Your task to perform on an android device: turn off javascript in the chrome app Image 0: 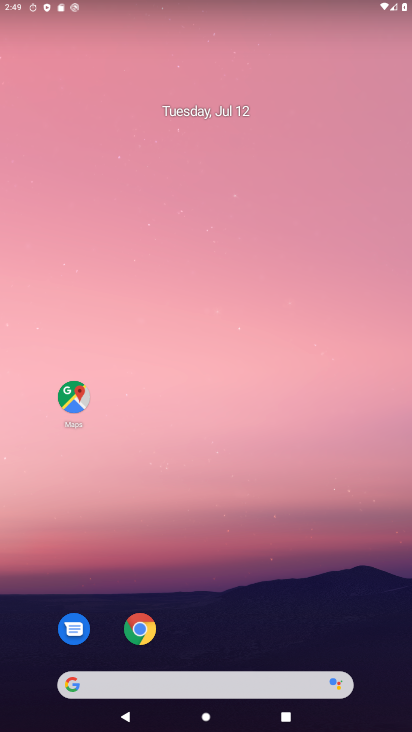
Step 0: drag from (270, 535) to (262, 113)
Your task to perform on an android device: turn off javascript in the chrome app Image 1: 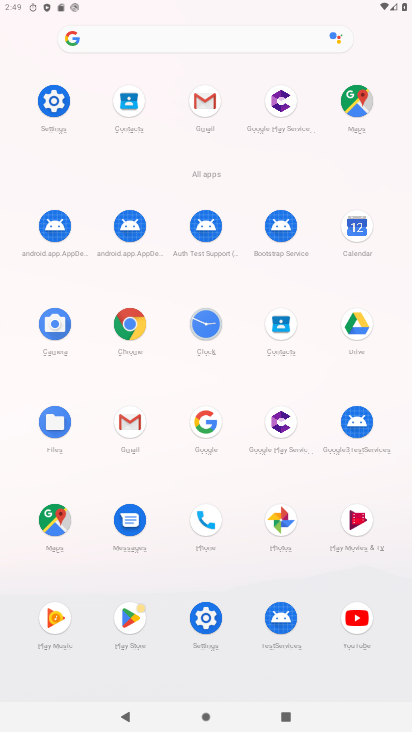
Step 1: click (123, 318)
Your task to perform on an android device: turn off javascript in the chrome app Image 2: 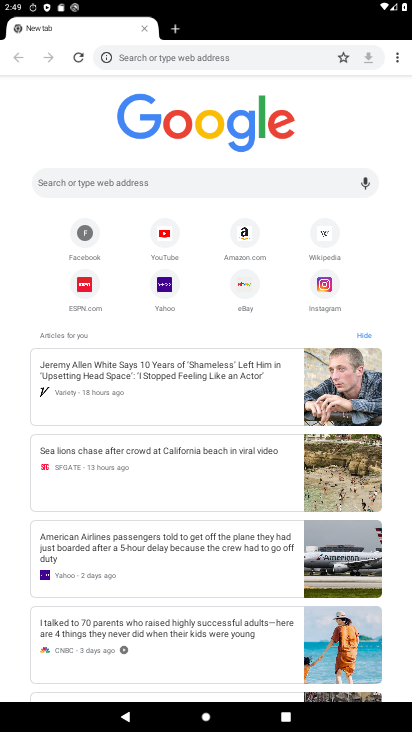
Step 2: click (397, 55)
Your task to perform on an android device: turn off javascript in the chrome app Image 3: 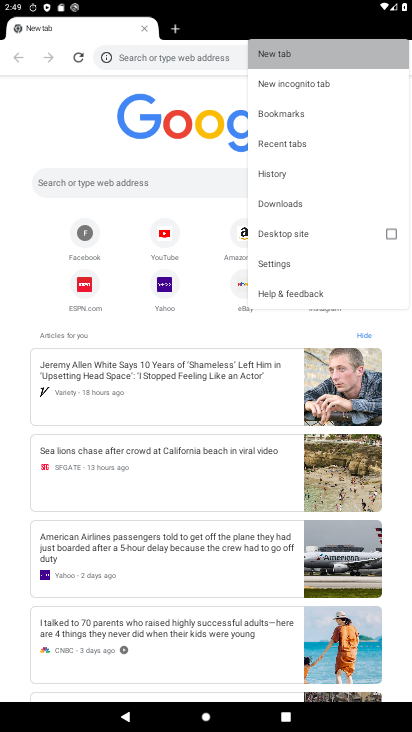
Step 3: drag from (397, 55) to (275, 258)
Your task to perform on an android device: turn off javascript in the chrome app Image 4: 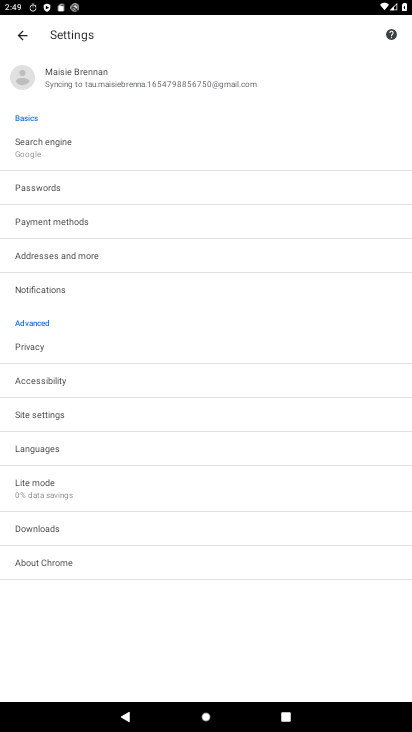
Step 4: click (37, 403)
Your task to perform on an android device: turn off javascript in the chrome app Image 5: 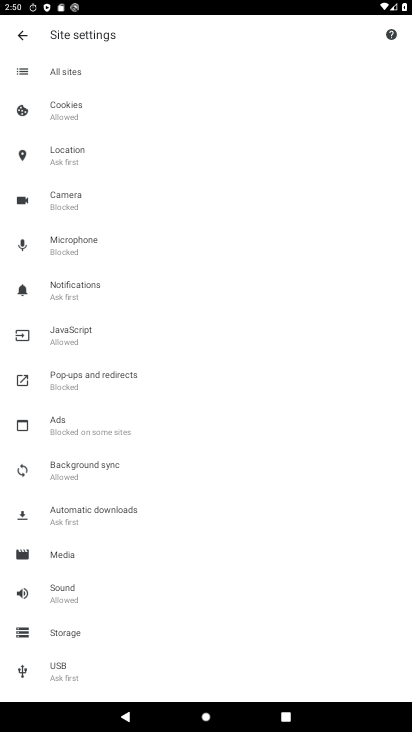
Step 5: click (65, 332)
Your task to perform on an android device: turn off javascript in the chrome app Image 6: 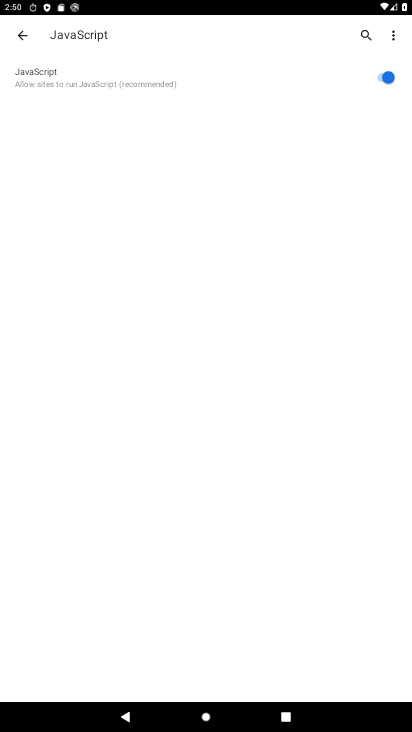
Step 6: click (379, 73)
Your task to perform on an android device: turn off javascript in the chrome app Image 7: 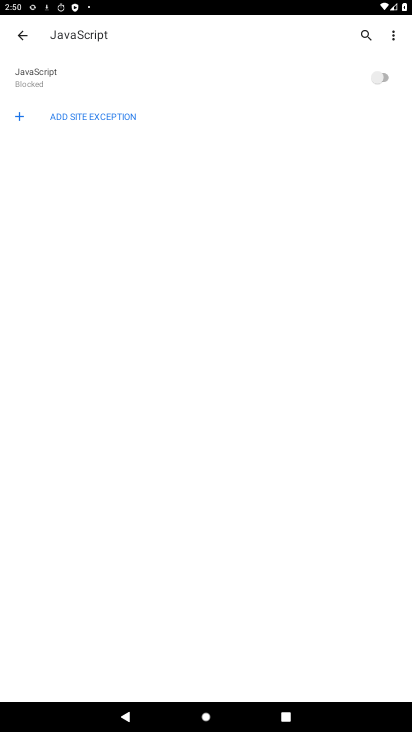
Step 7: task complete